Your task to perform on an android device: check battery use Image 0: 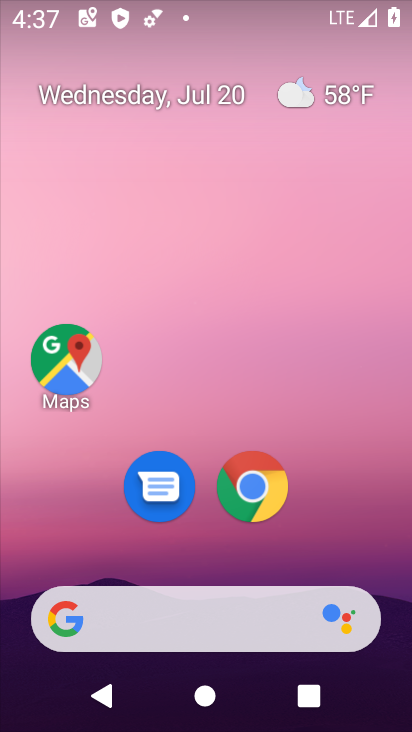
Step 0: drag from (176, 586) to (246, 2)
Your task to perform on an android device: check battery use Image 1: 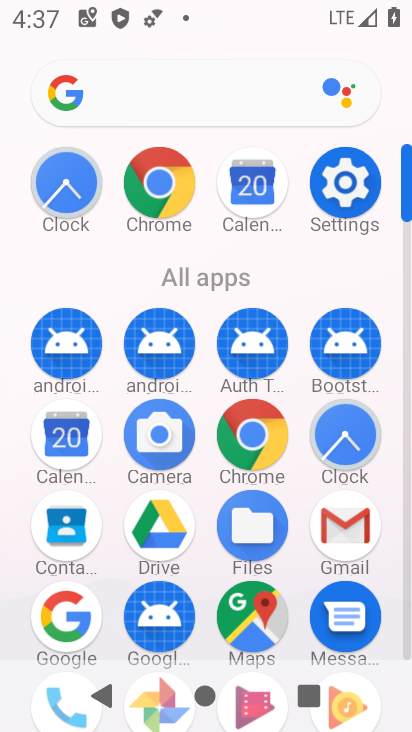
Step 1: click (356, 182)
Your task to perform on an android device: check battery use Image 2: 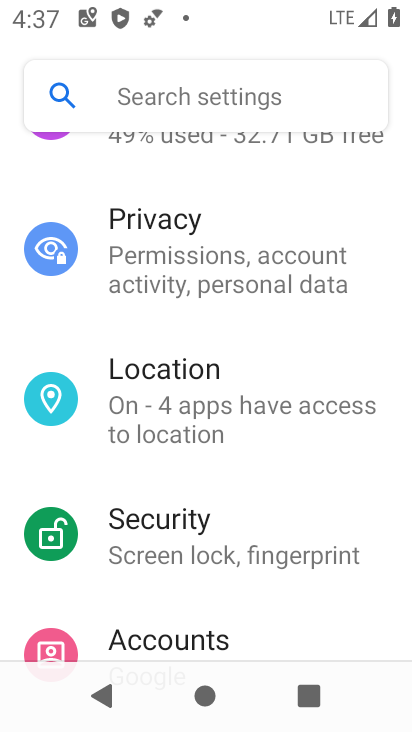
Step 2: drag from (174, 644) to (224, 197)
Your task to perform on an android device: check battery use Image 3: 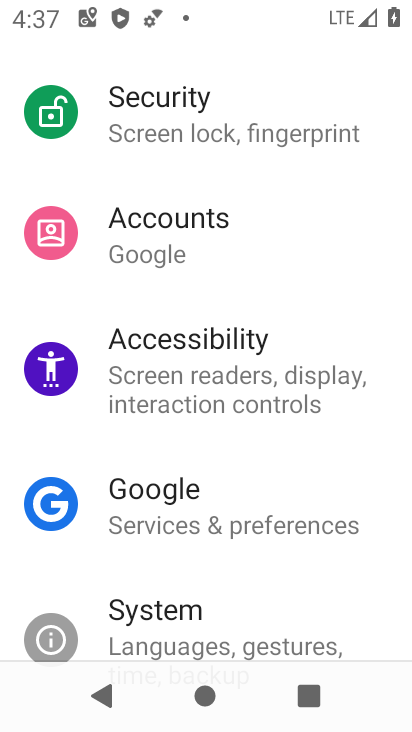
Step 3: drag from (221, 334) to (242, 98)
Your task to perform on an android device: check battery use Image 4: 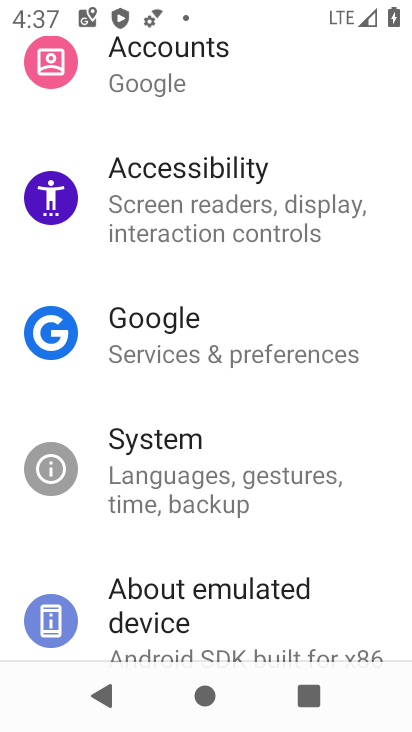
Step 4: drag from (229, 149) to (205, 638)
Your task to perform on an android device: check battery use Image 5: 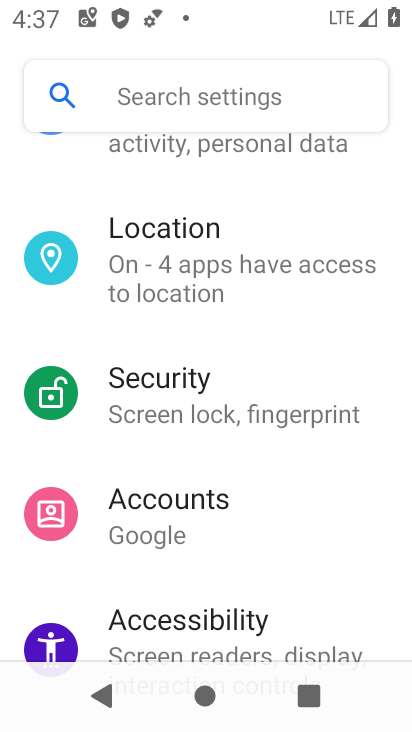
Step 5: drag from (202, 199) to (197, 692)
Your task to perform on an android device: check battery use Image 6: 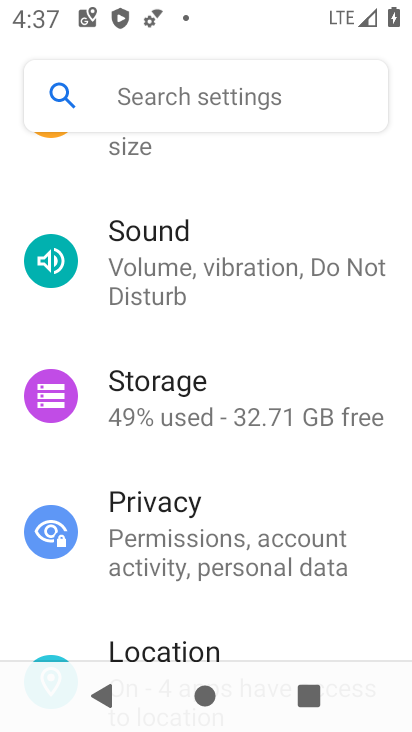
Step 6: drag from (213, 210) to (176, 725)
Your task to perform on an android device: check battery use Image 7: 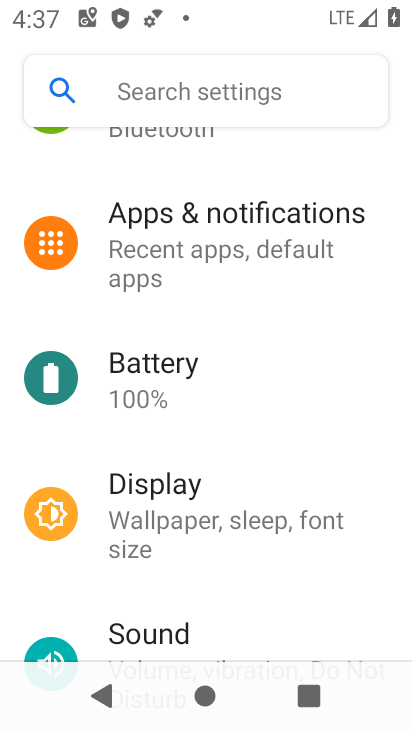
Step 7: click (160, 397)
Your task to perform on an android device: check battery use Image 8: 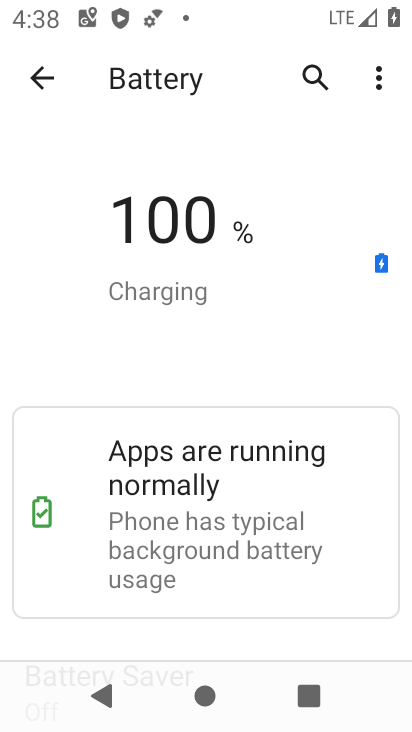
Step 8: click (378, 70)
Your task to perform on an android device: check battery use Image 9: 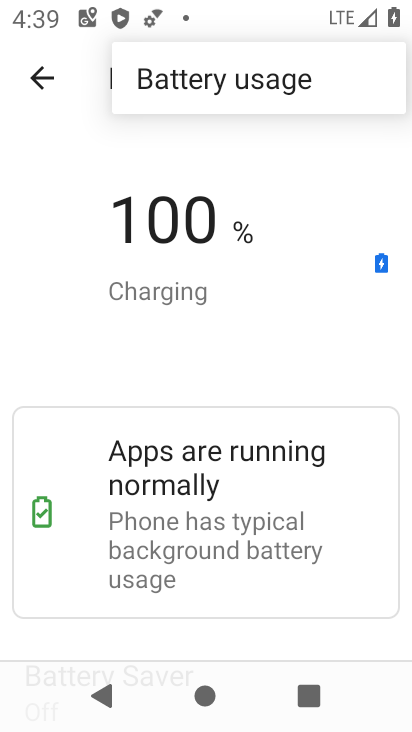
Step 9: click (314, 84)
Your task to perform on an android device: check battery use Image 10: 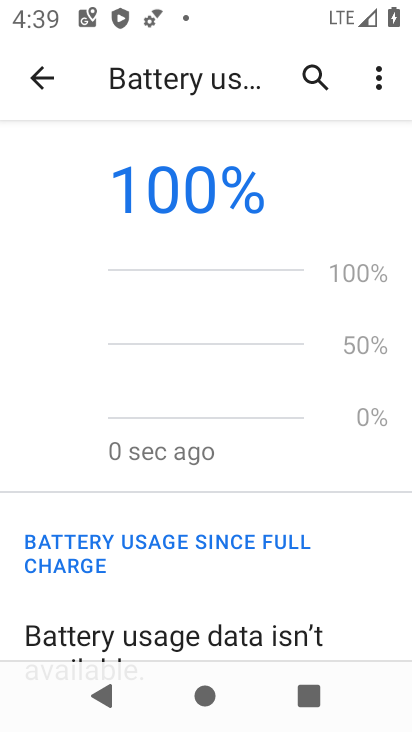
Step 10: task complete